Your task to perform on an android device: Toggle the flashlight Image 0: 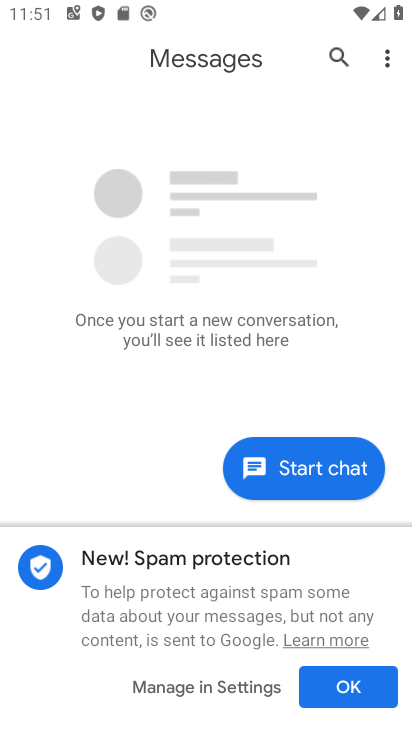
Step 0: press home button
Your task to perform on an android device: Toggle the flashlight Image 1: 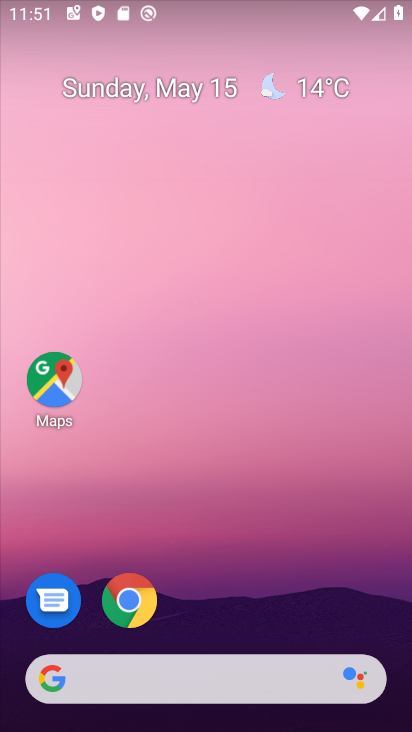
Step 1: drag from (240, 14) to (278, 474)
Your task to perform on an android device: Toggle the flashlight Image 2: 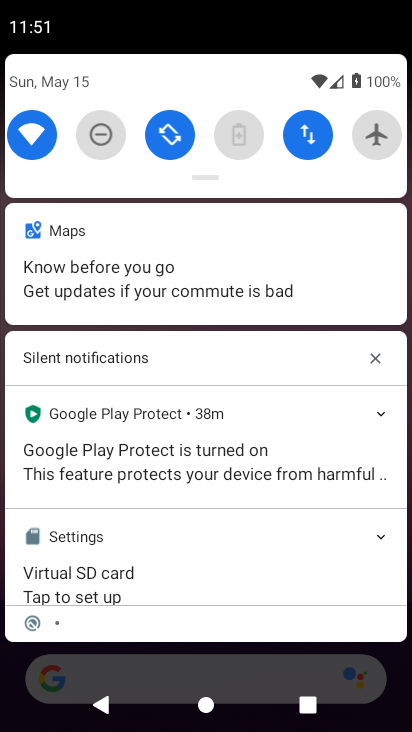
Step 2: drag from (205, 179) to (247, 532)
Your task to perform on an android device: Toggle the flashlight Image 3: 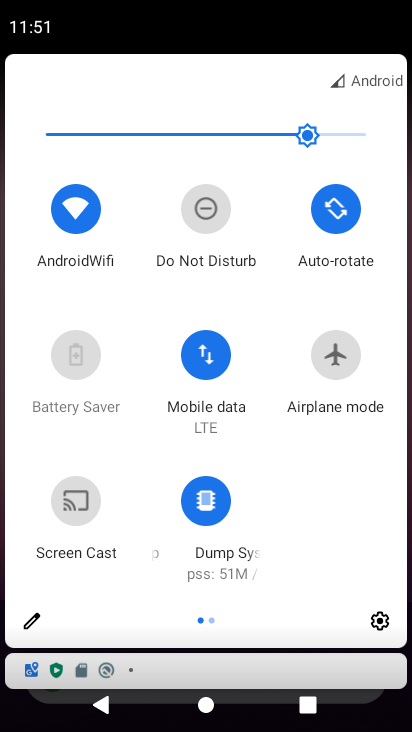
Step 3: click (28, 616)
Your task to perform on an android device: Toggle the flashlight Image 4: 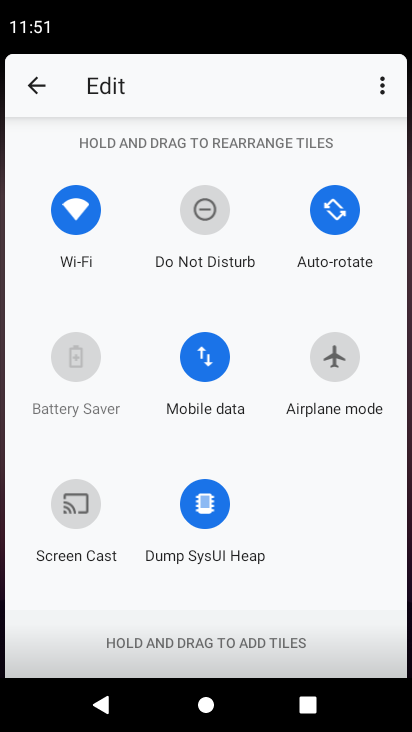
Step 4: task complete